Your task to perform on an android device: Open the Play Movies app and select the watchlist tab. Image 0: 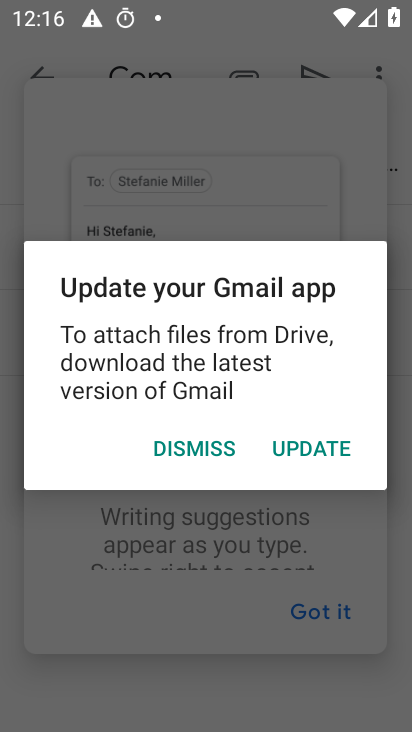
Step 0: press home button
Your task to perform on an android device: Open the Play Movies app and select the watchlist tab. Image 1: 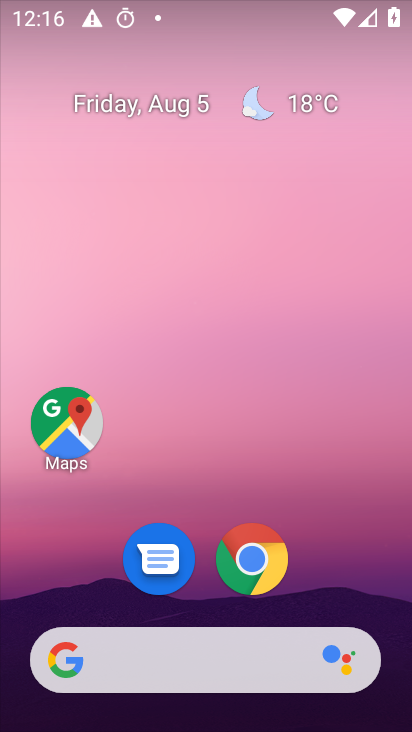
Step 1: drag from (25, 711) to (176, 446)
Your task to perform on an android device: Open the Play Movies app and select the watchlist tab. Image 2: 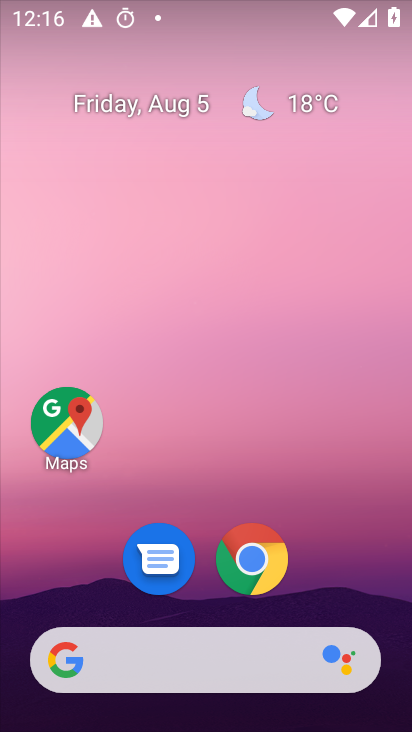
Step 2: drag from (32, 700) to (99, 401)
Your task to perform on an android device: Open the Play Movies app and select the watchlist tab. Image 3: 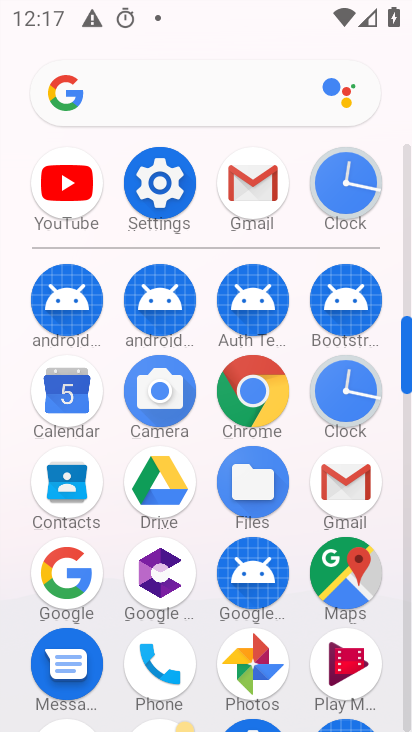
Step 3: click (359, 659)
Your task to perform on an android device: Open the Play Movies app and select the watchlist tab. Image 4: 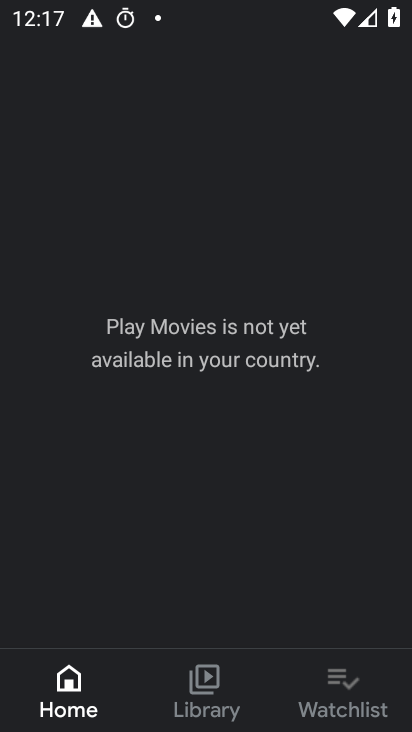
Step 4: click (333, 708)
Your task to perform on an android device: Open the Play Movies app and select the watchlist tab. Image 5: 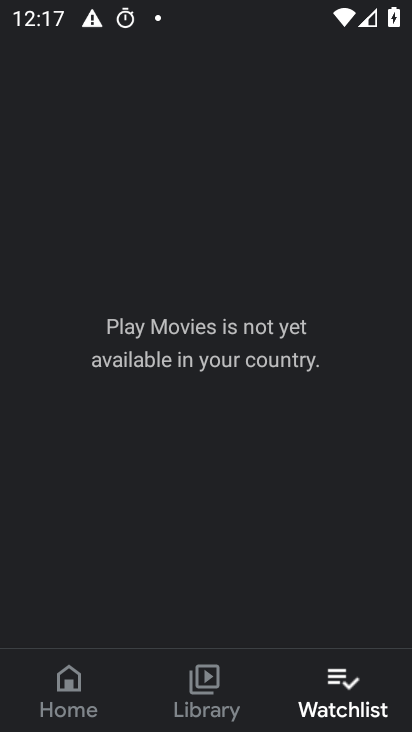
Step 5: task complete